Your task to perform on an android device: Go to Google maps Image 0: 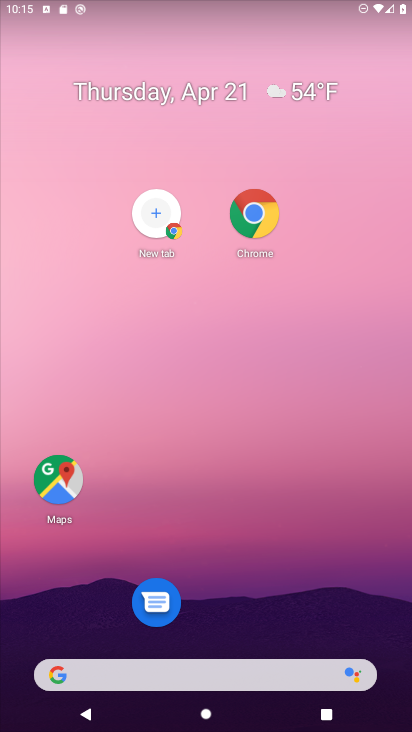
Step 0: click (64, 475)
Your task to perform on an android device: Go to Google maps Image 1: 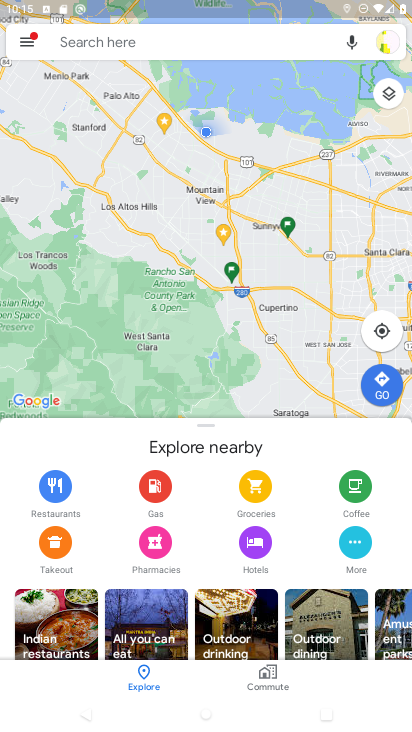
Step 1: task complete